Your task to perform on an android device: turn on the 24-hour format for clock Image 0: 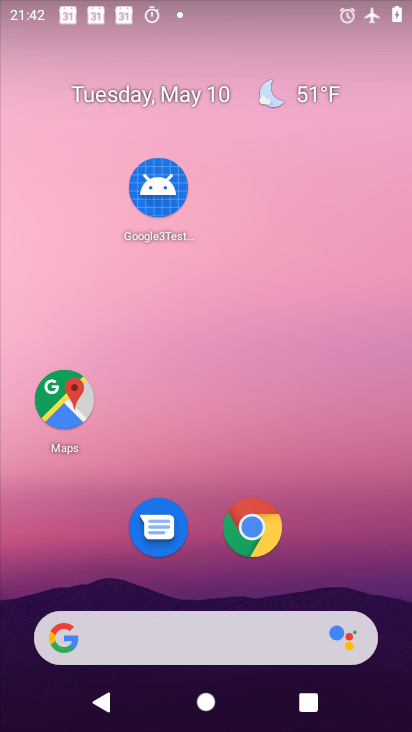
Step 0: drag from (207, 606) to (176, 24)
Your task to perform on an android device: turn on the 24-hour format for clock Image 1: 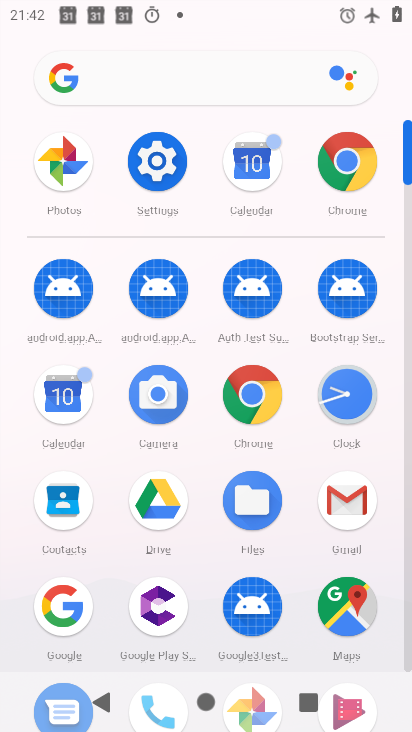
Step 1: click (343, 386)
Your task to perform on an android device: turn on the 24-hour format for clock Image 2: 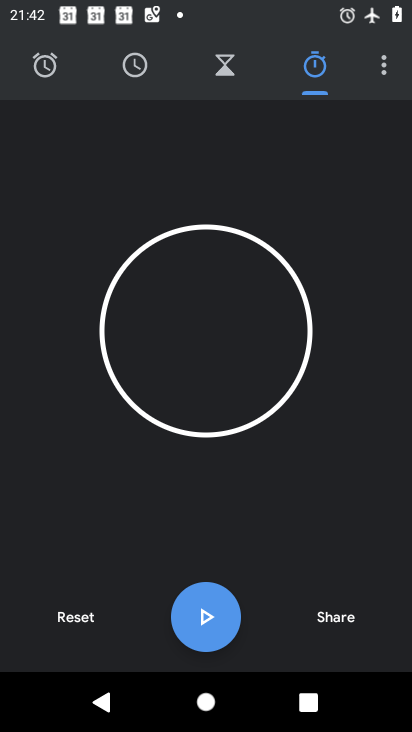
Step 2: click (381, 73)
Your task to perform on an android device: turn on the 24-hour format for clock Image 3: 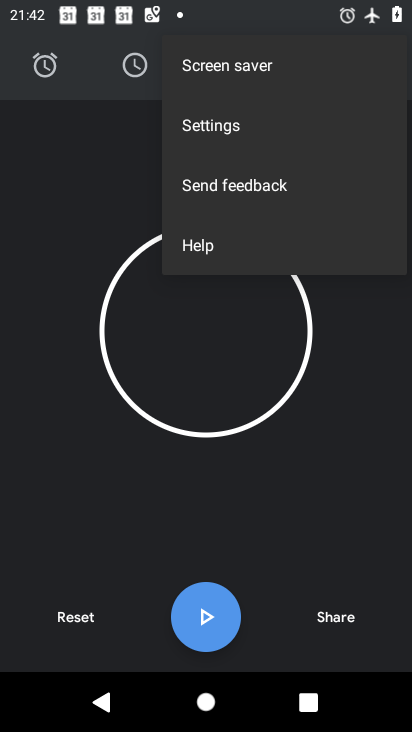
Step 3: click (214, 129)
Your task to perform on an android device: turn on the 24-hour format for clock Image 4: 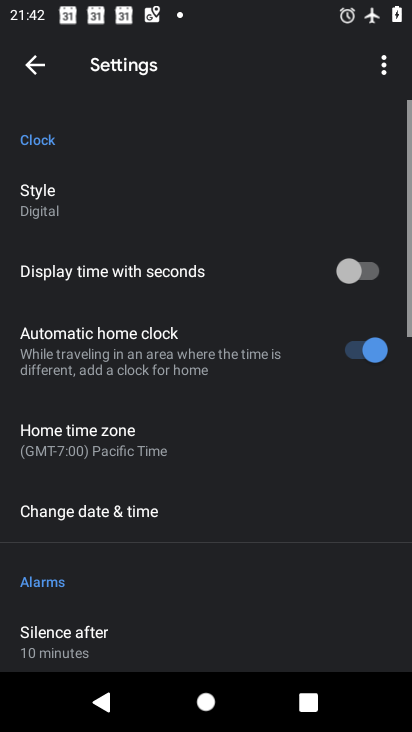
Step 4: click (163, 509)
Your task to perform on an android device: turn on the 24-hour format for clock Image 5: 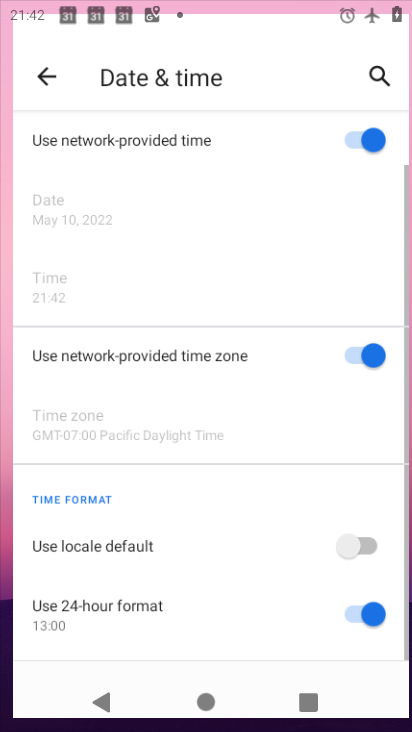
Step 5: task complete